Your task to perform on an android device: Go to ESPN.com Image 0: 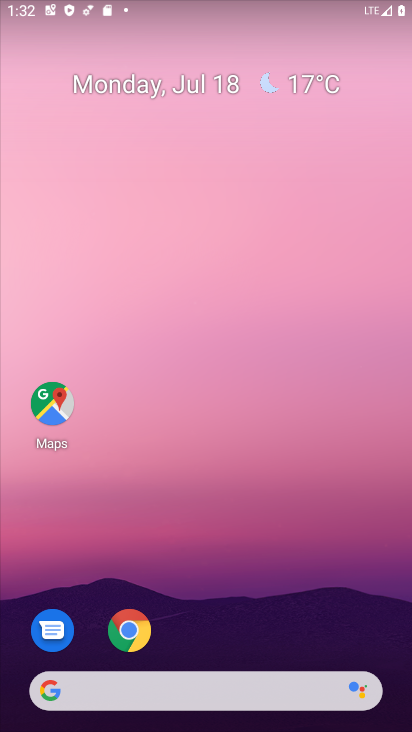
Step 0: click (274, 688)
Your task to perform on an android device: Go to ESPN.com Image 1: 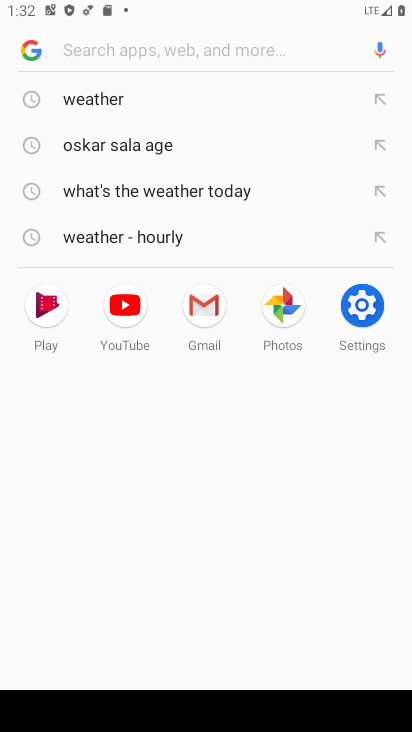
Step 1: type "espn.com"
Your task to perform on an android device: Go to ESPN.com Image 2: 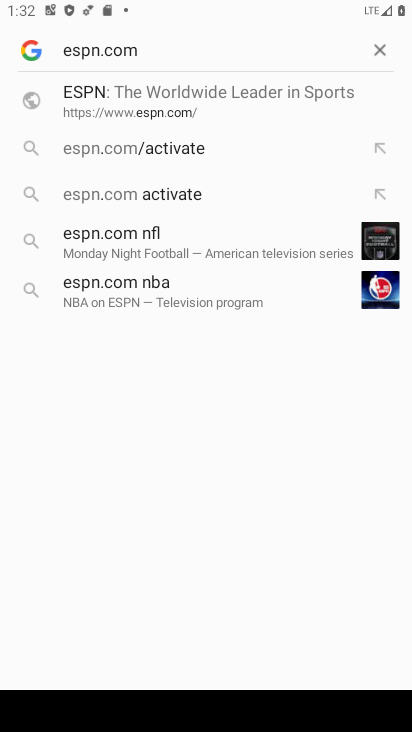
Step 2: click (189, 95)
Your task to perform on an android device: Go to ESPN.com Image 3: 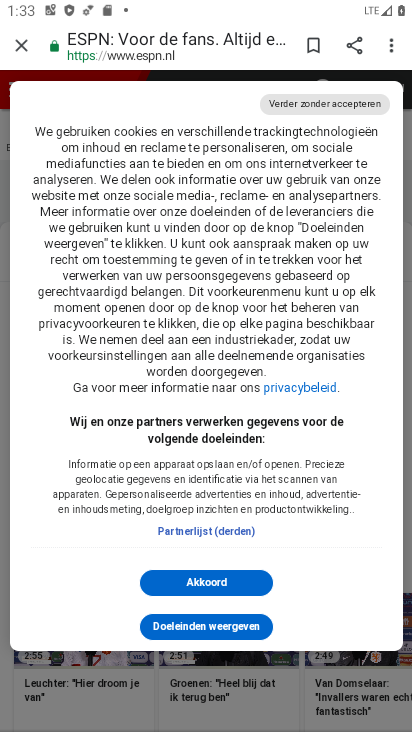
Step 3: task complete